Your task to perform on an android device: turn on data saver in the chrome app Image 0: 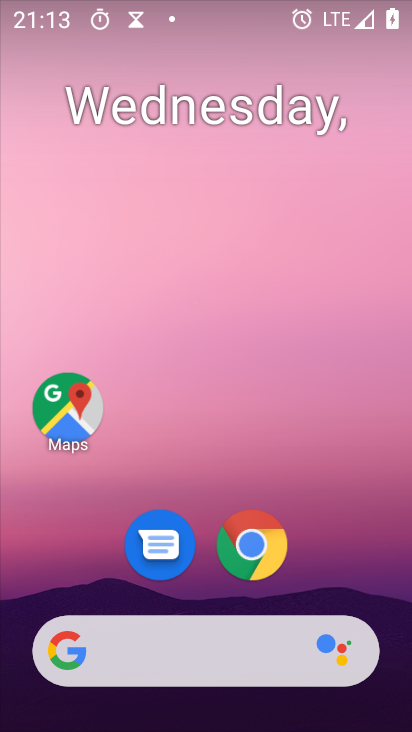
Step 0: press home button
Your task to perform on an android device: turn on data saver in the chrome app Image 1: 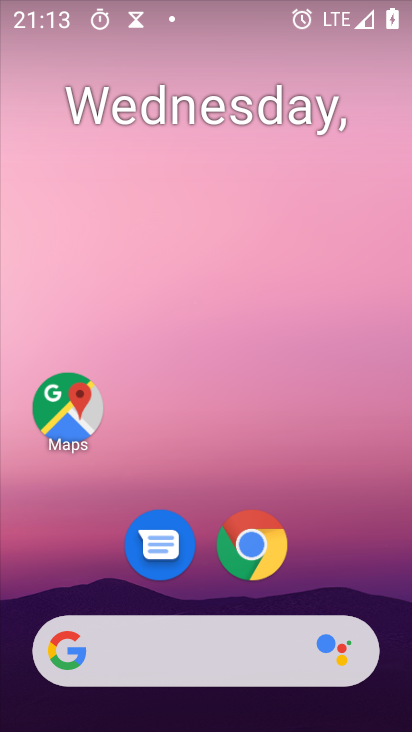
Step 1: click (250, 568)
Your task to perform on an android device: turn on data saver in the chrome app Image 2: 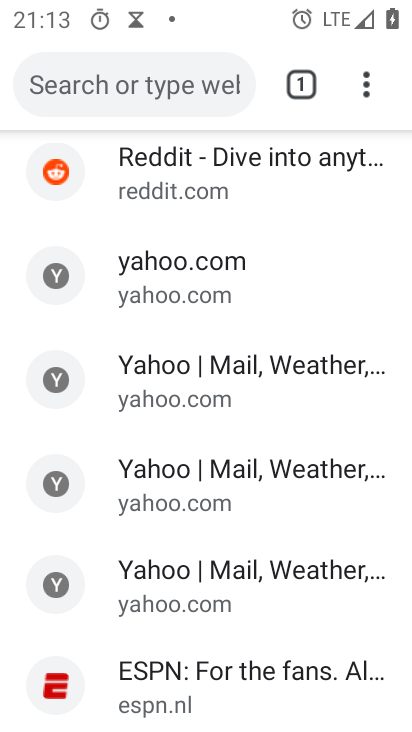
Step 2: drag from (365, 95) to (202, 607)
Your task to perform on an android device: turn on data saver in the chrome app Image 3: 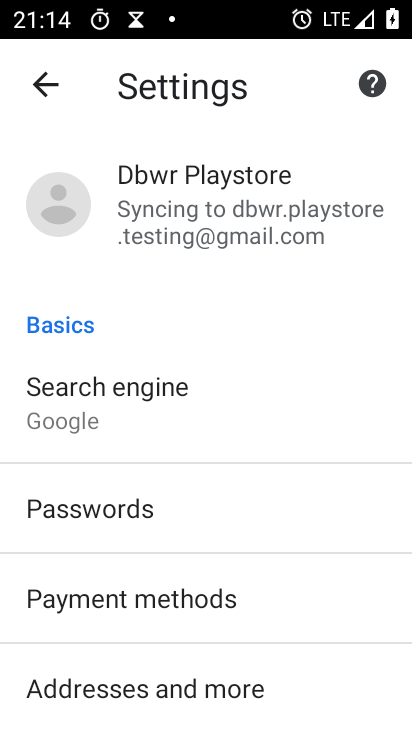
Step 3: drag from (244, 640) to (373, 116)
Your task to perform on an android device: turn on data saver in the chrome app Image 4: 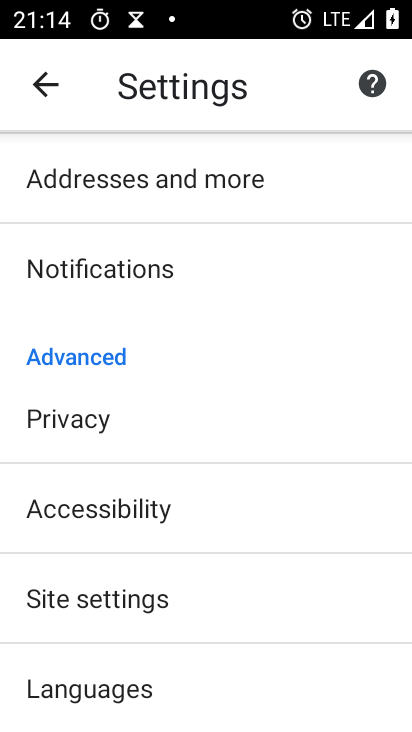
Step 4: drag from (208, 610) to (289, 262)
Your task to perform on an android device: turn on data saver in the chrome app Image 5: 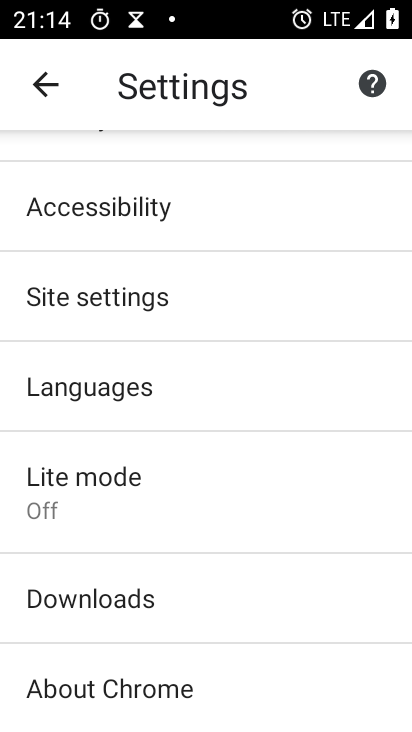
Step 5: click (120, 491)
Your task to perform on an android device: turn on data saver in the chrome app Image 6: 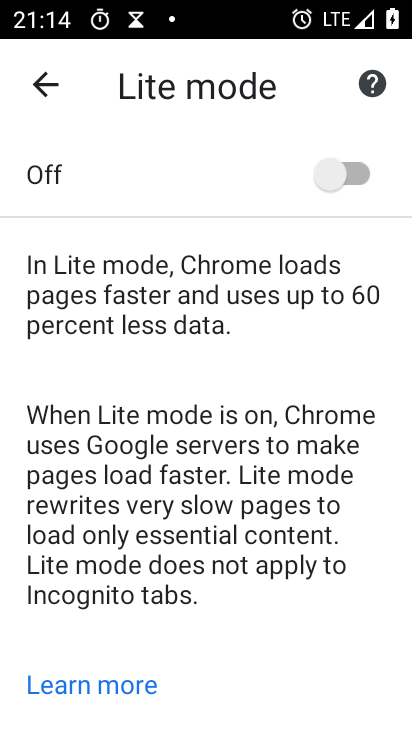
Step 6: click (357, 170)
Your task to perform on an android device: turn on data saver in the chrome app Image 7: 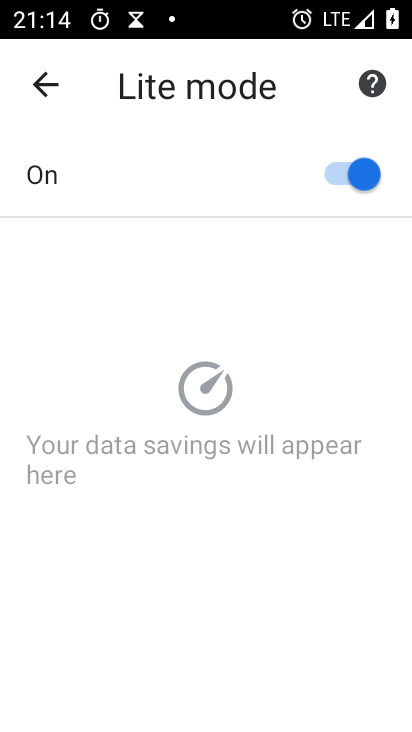
Step 7: task complete